Your task to perform on an android device: Show me popular games on the Play Store Image 0: 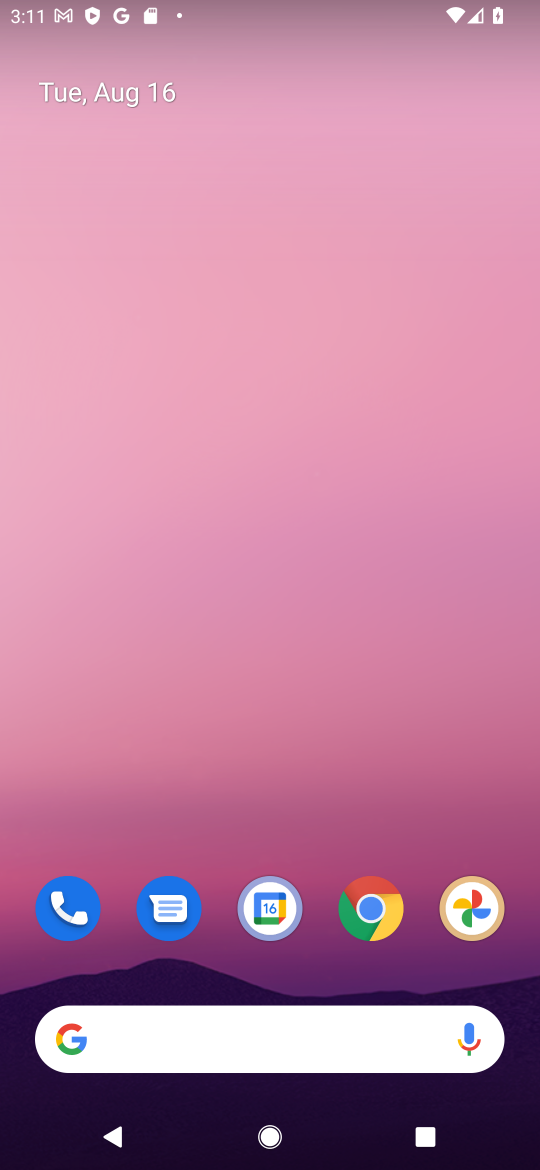
Step 0: drag from (282, 928) to (361, 194)
Your task to perform on an android device: Show me popular games on the Play Store Image 1: 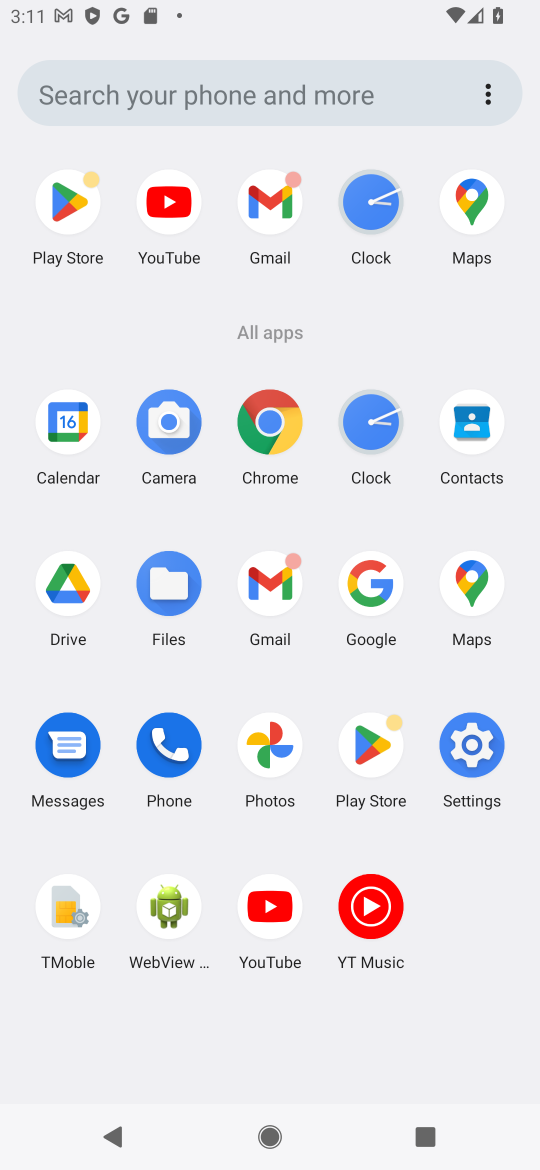
Step 1: click (370, 753)
Your task to perform on an android device: Show me popular games on the Play Store Image 2: 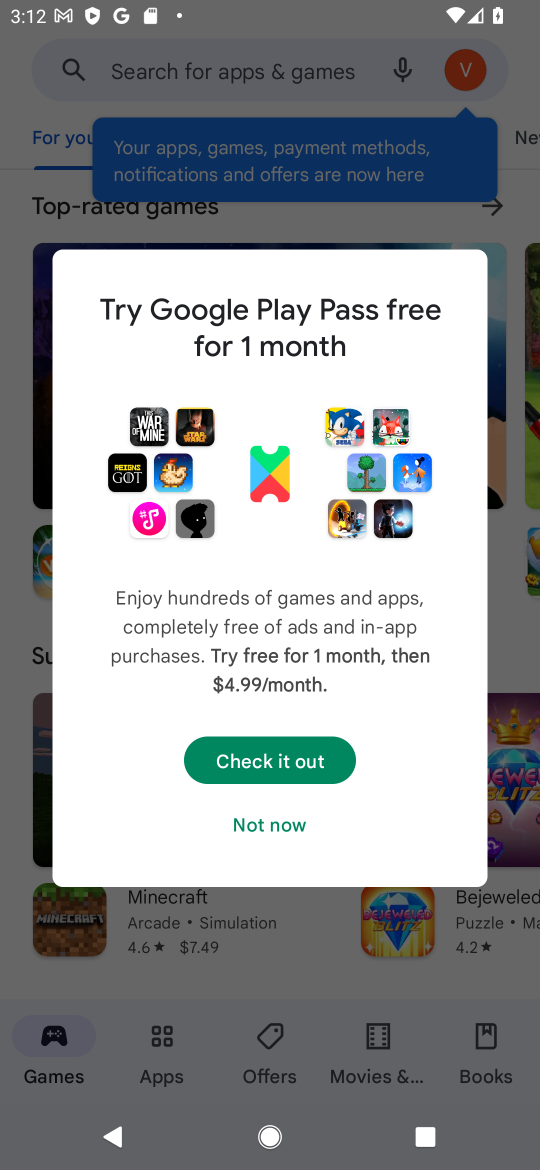
Step 2: click (270, 818)
Your task to perform on an android device: Show me popular games on the Play Store Image 3: 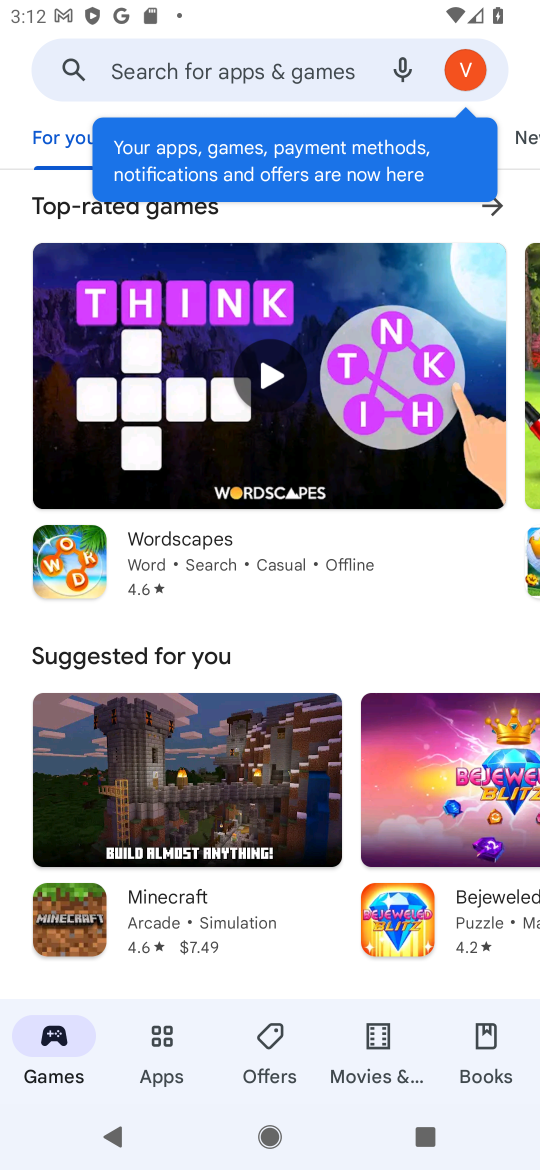
Step 3: task complete